Your task to perform on an android device: see tabs open on other devices in the chrome app Image 0: 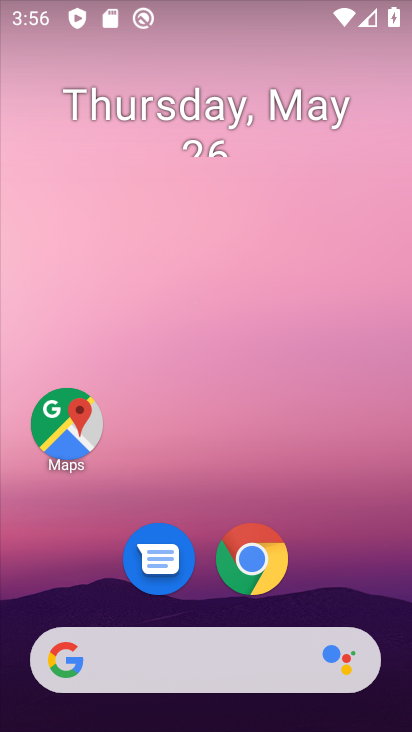
Step 0: click (251, 564)
Your task to perform on an android device: see tabs open on other devices in the chrome app Image 1: 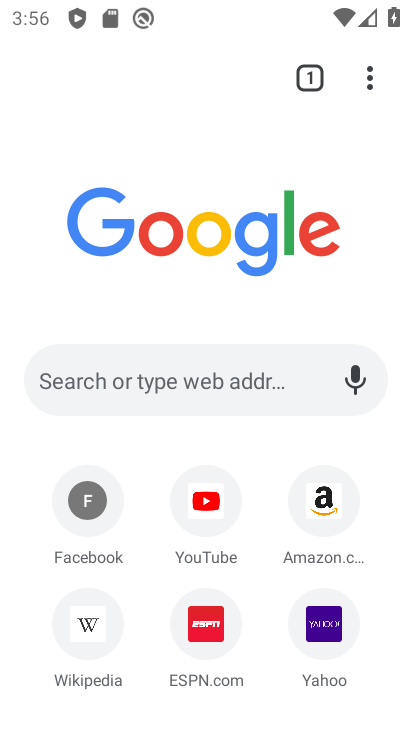
Step 1: click (367, 75)
Your task to perform on an android device: see tabs open on other devices in the chrome app Image 2: 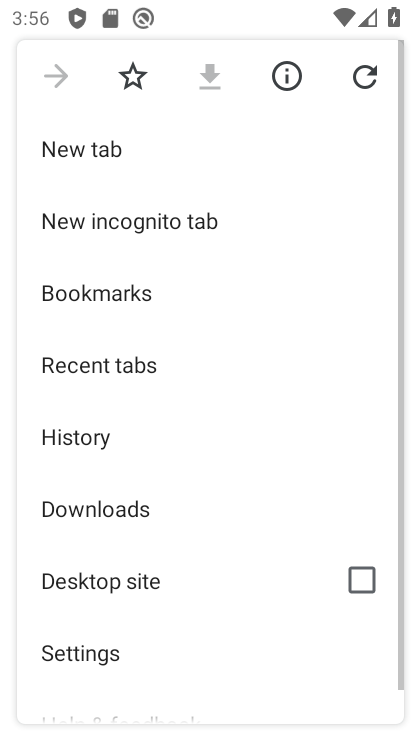
Step 2: click (140, 367)
Your task to perform on an android device: see tabs open on other devices in the chrome app Image 3: 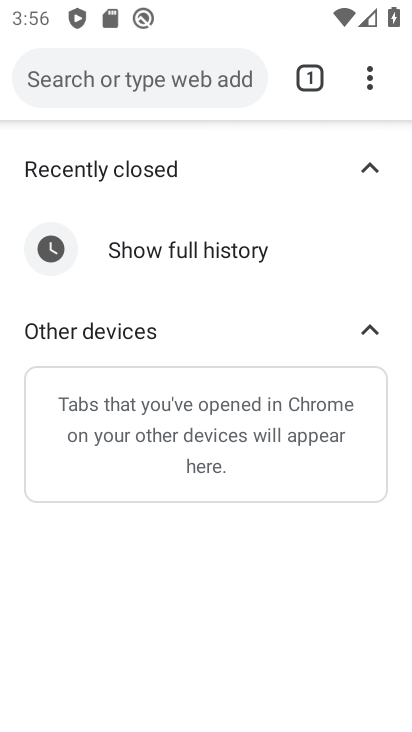
Step 3: task complete